Your task to perform on an android device: snooze an email in the gmail app Image 0: 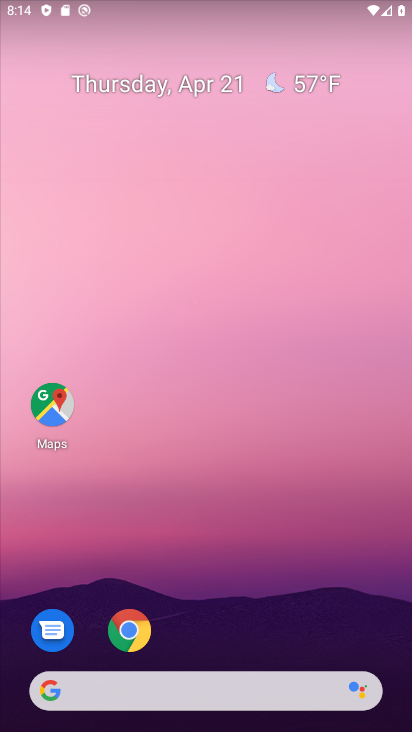
Step 0: drag from (302, 617) to (262, 335)
Your task to perform on an android device: snooze an email in the gmail app Image 1: 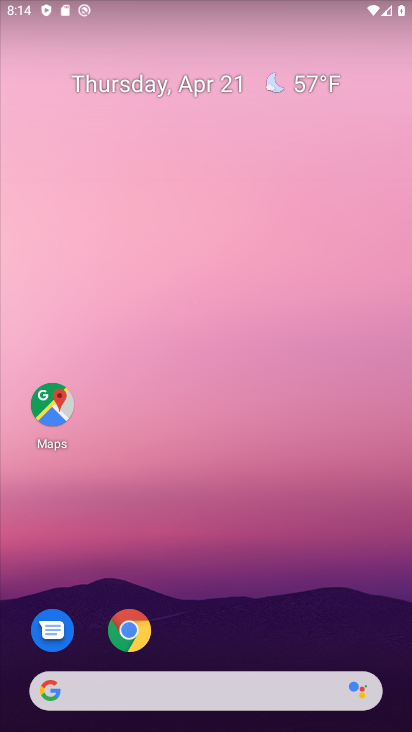
Step 1: drag from (325, 618) to (349, 85)
Your task to perform on an android device: snooze an email in the gmail app Image 2: 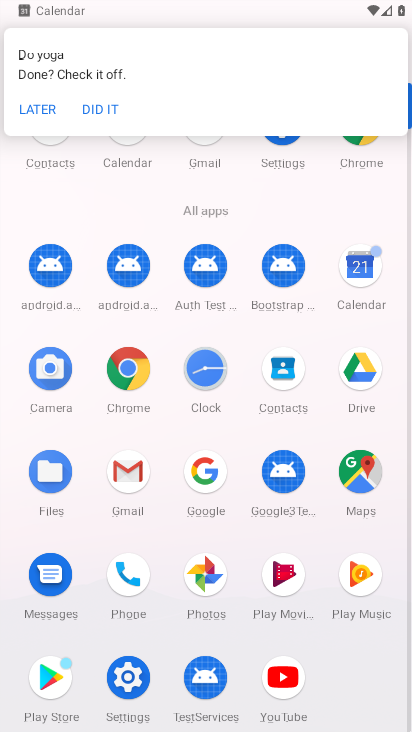
Step 2: click (29, 109)
Your task to perform on an android device: snooze an email in the gmail app Image 3: 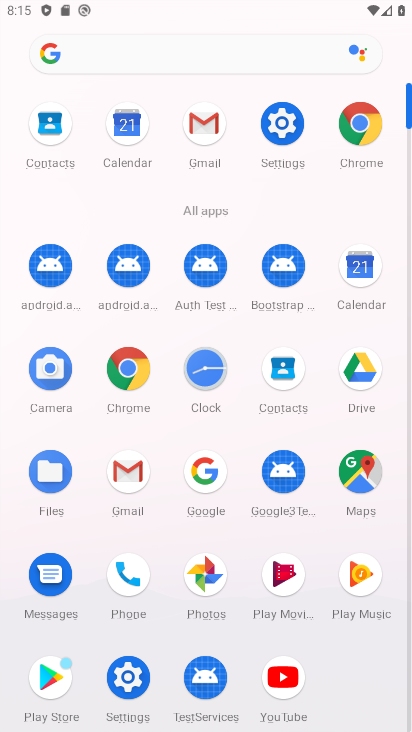
Step 3: click (120, 467)
Your task to perform on an android device: snooze an email in the gmail app Image 4: 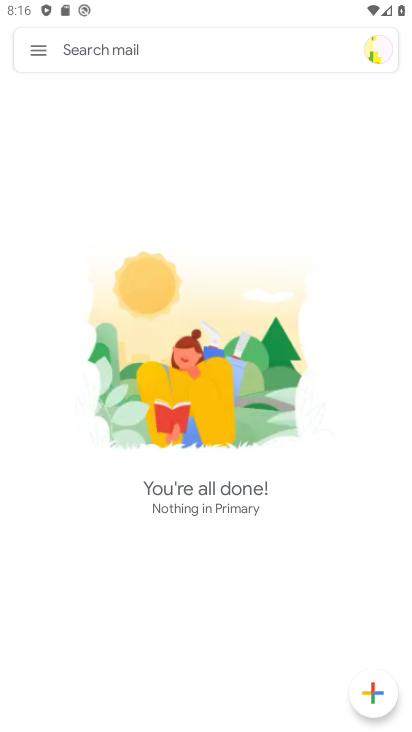
Step 4: task complete